Your task to perform on an android device: open a bookmark in the chrome app Image 0: 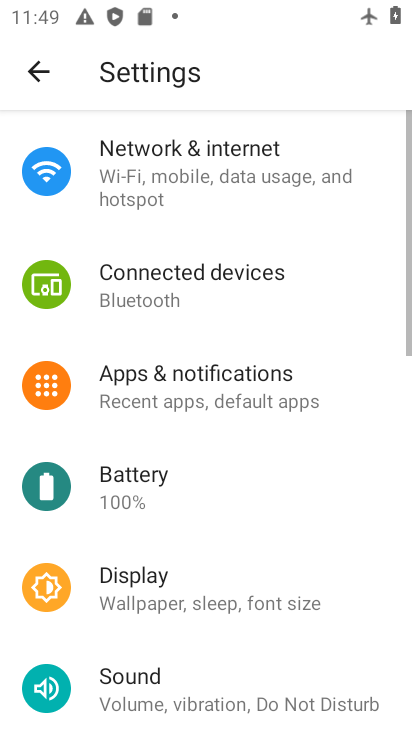
Step 0: press home button
Your task to perform on an android device: open a bookmark in the chrome app Image 1: 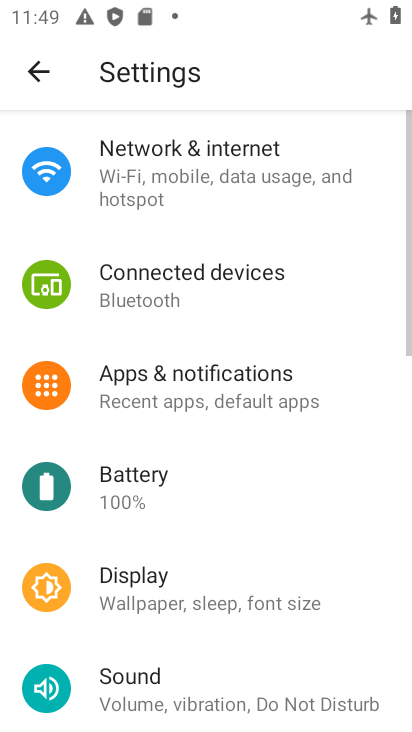
Step 1: press home button
Your task to perform on an android device: open a bookmark in the chrome app Image 2: 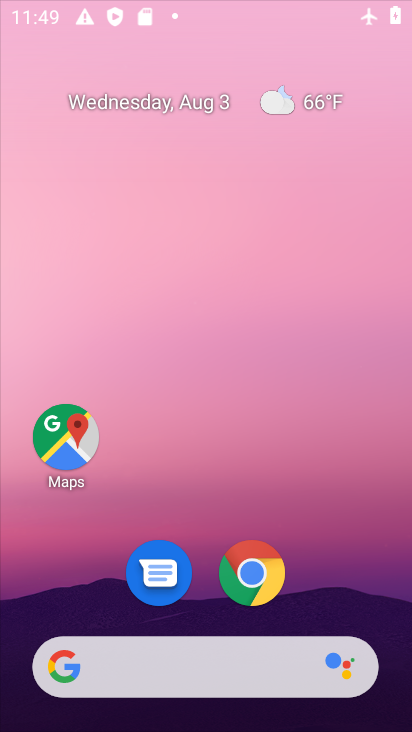
Step 2: press home button
Your task to perform on an android device: open a bookmark in the chrome app Image 3: 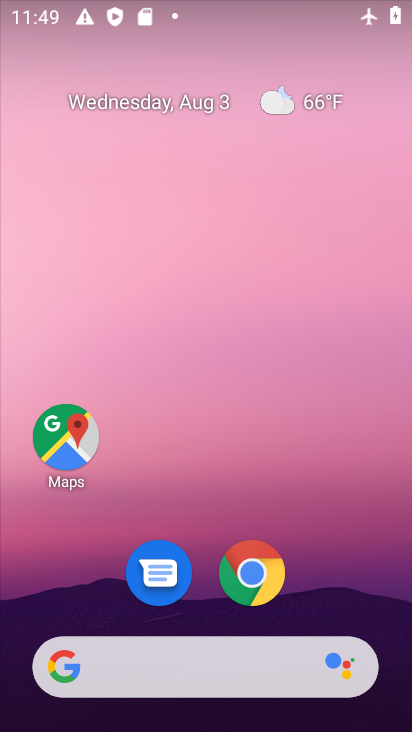
Step 3: drag from (356, 592) to (269, 108)
Your task to perform on an android device: open a bookmark in the chrome app Image 4: 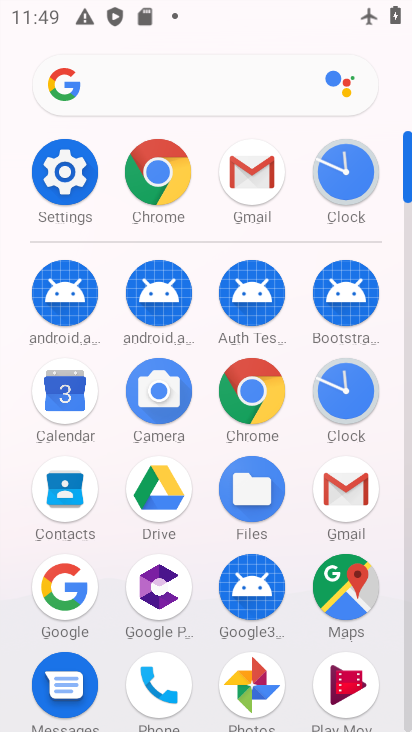
Step 4: click (249, 392)
Your task to perform on an android device: open a bookmark in the chrome app Image 5: 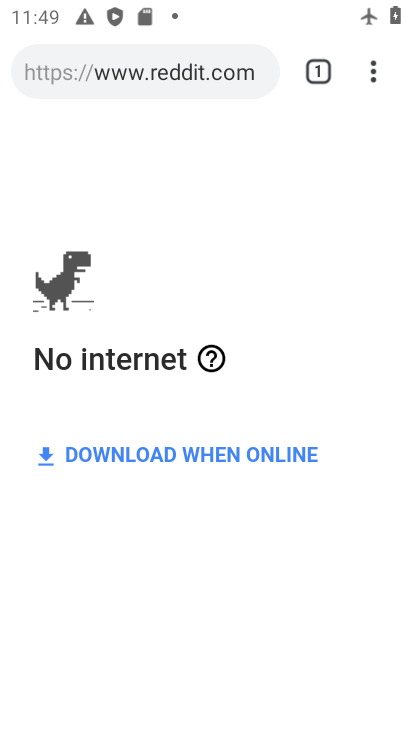
Step 5: drag from (383, 56) to (168, 262)
Your task to perform on an android device: open a bookmark in the chrome app Image 6: 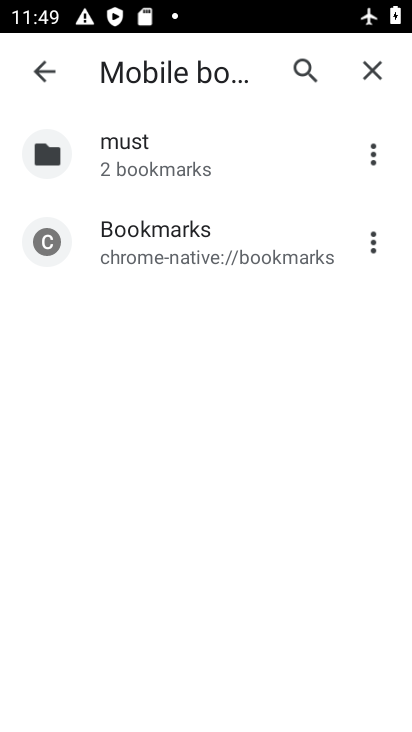
Step 6: click (177, 237)
Your task to perform on an android device: open a bookmark in the chrome app Image 7: 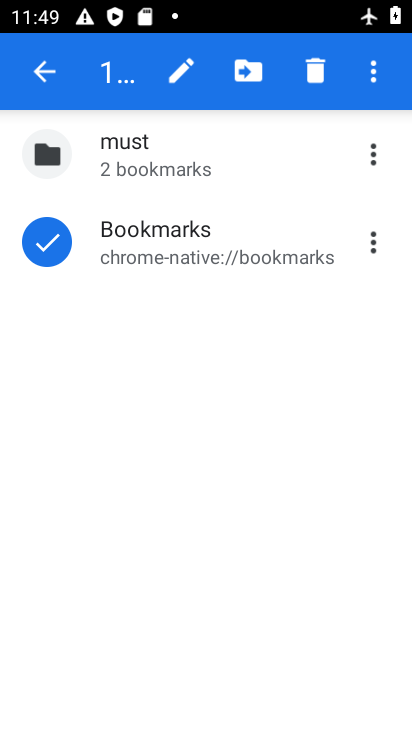
Step 7: click (177, 237)
Your task to perform on an android device: open a bookmark in the chrome app Image 8: 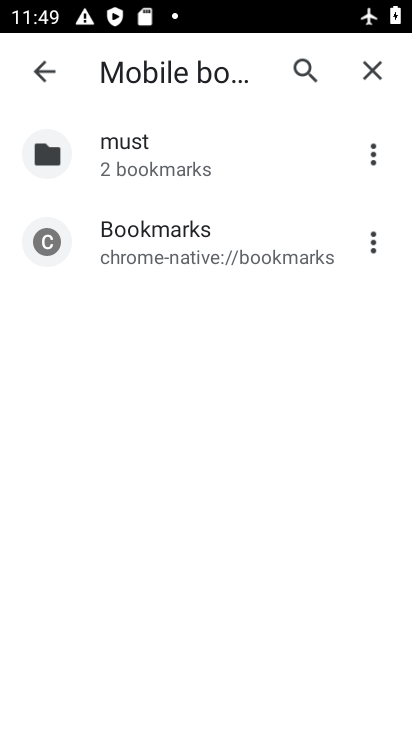
Step 8: click (141, 249)
Your task to perform on an android device: open a bookmark in the chrome app Image 9: 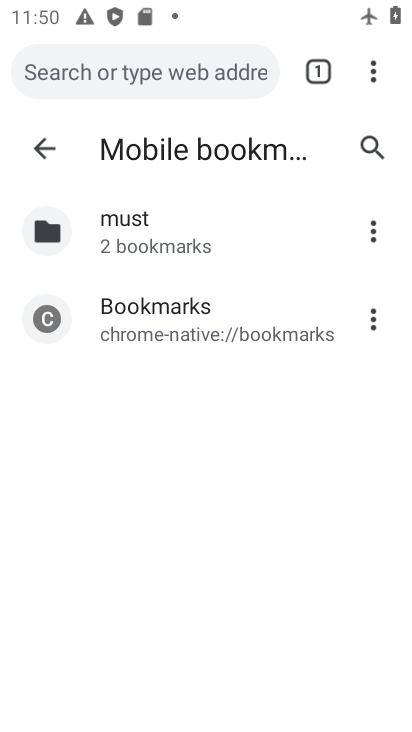
Step 9: click (158, 306)
Your task to perform on an android device: open a bookmark in the chrome app Image 10: 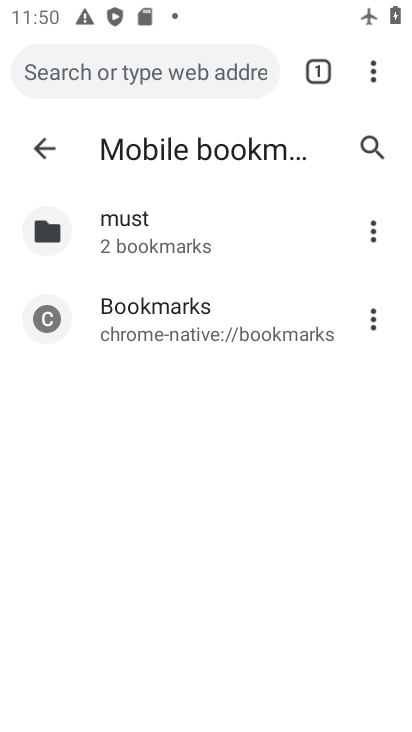
Step 10: click (165, 320)
Your task to perform on an android device: open a bookmark in the chrome app Image 11: 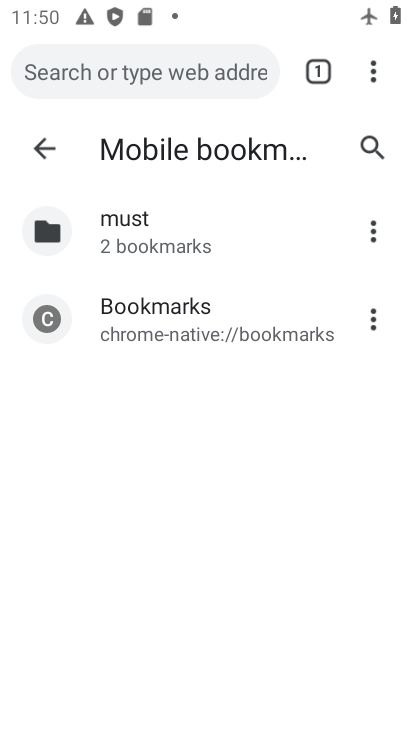
Step 11: click (171, 313)
Your task to perform on an android device: open a bookmark in the chrome app Image 12: 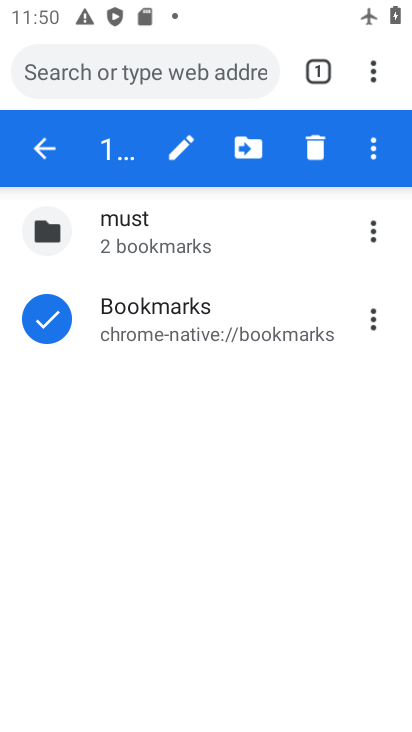
Step 12: click (233, 326)
Your task to perform on an android device: open a bookmark in the chrome app Image 13: 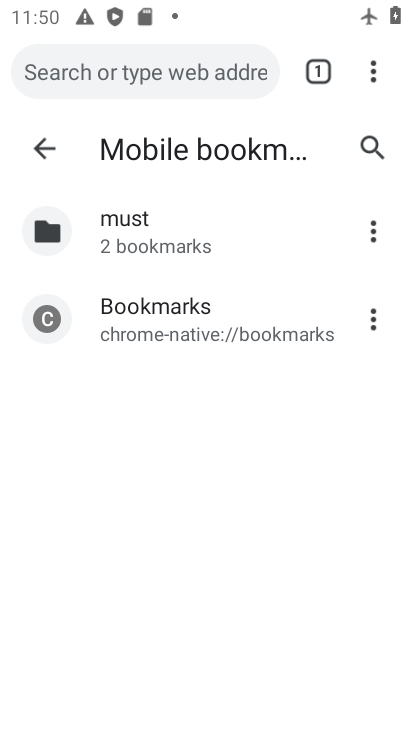
Step 13: click (254, 323)
Your task to perform on an android device: open a bookmark in the chrome app Image 14: 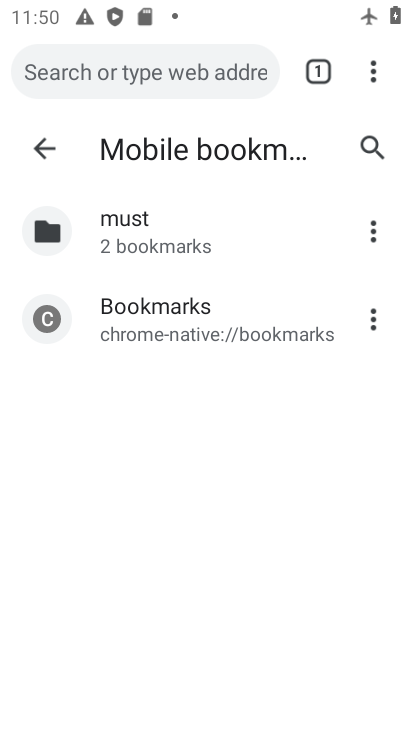
Step 14: task complete